Your task to perform on an android device: open sync settings in chrome Image 0: 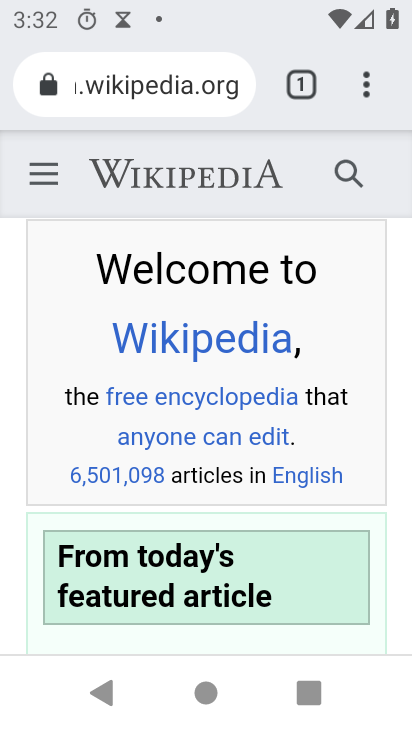
Step 0: press home button
Your task to perform on an android device: open sync settings in chrome Image 1: 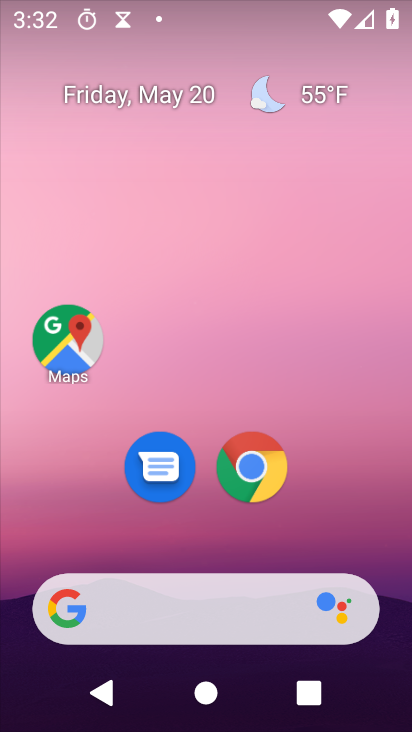
Step 1: drag from (208, 542) to (187, 106)
Your task to perform on an android device: open sync settings in chrome Image 2: 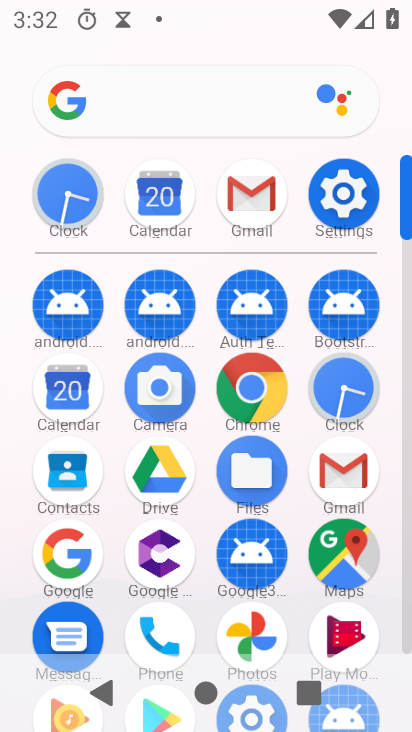
Step 2: click (242, 383)
Your task to perform on an android device: open sync settings in chrome Image 3: 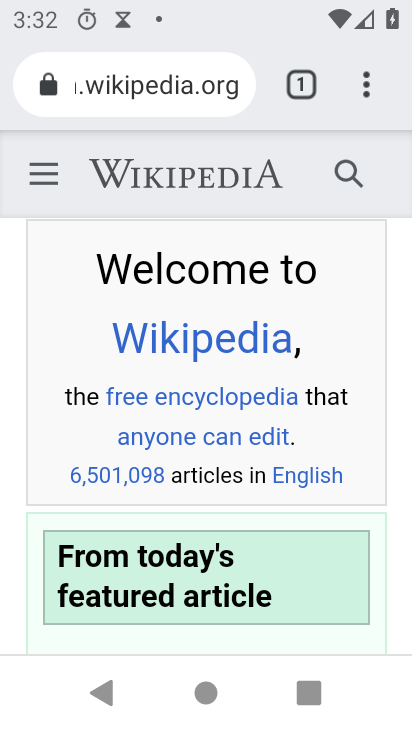
Step 3: click (370, 72)
Your task to perform on an android device: open sync settings in chrome Image 4: 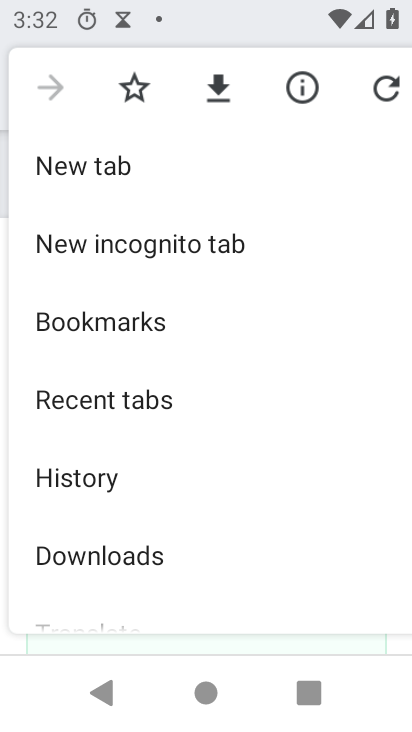
Step 4: drag from (232, 538) to (196, 255)
Your task to perform on an android device: open sync settings in chrome Image 5: 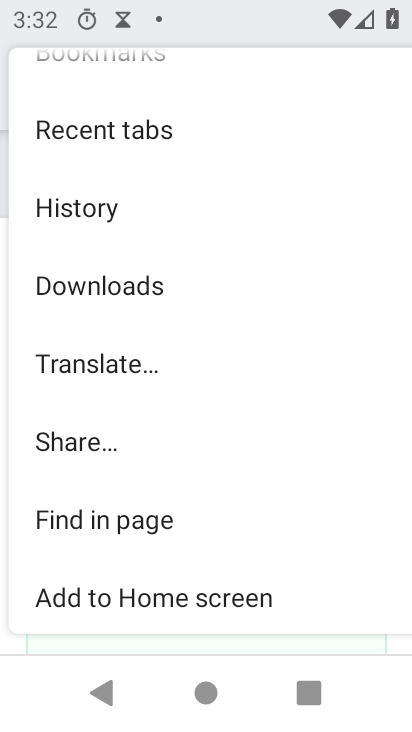
Step 5: drag from (110, 539) to (109, 264)
Your task to perform on an android device: open sync settings in chrome Image 6: 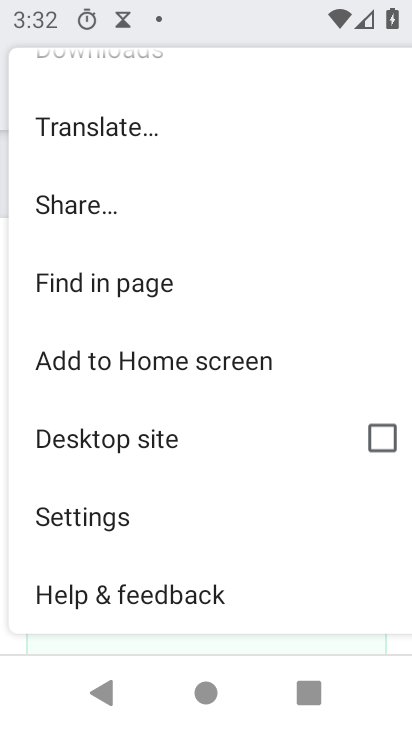
Step 6: click (111, 513)
Your task to perform on an android device: open sync settings in chrome Image 7: 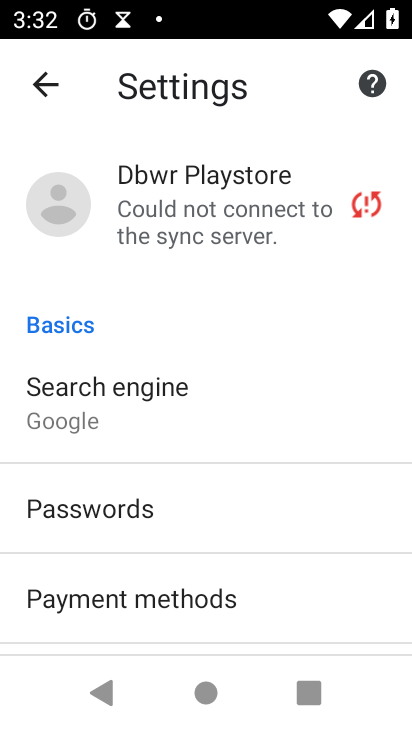
Step 7: click (187, 224)
Your task to perform on an android device: open sync settings in chrome Image 8: 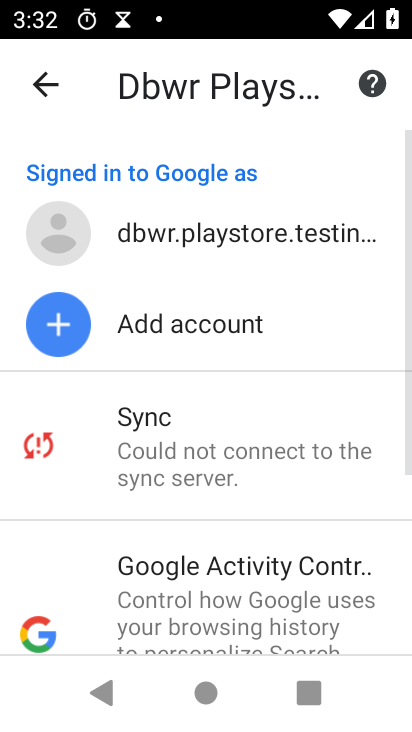
Step 8: click (152, 463)
Your task to perform on an android device: open sync settings in chrome Image 9: 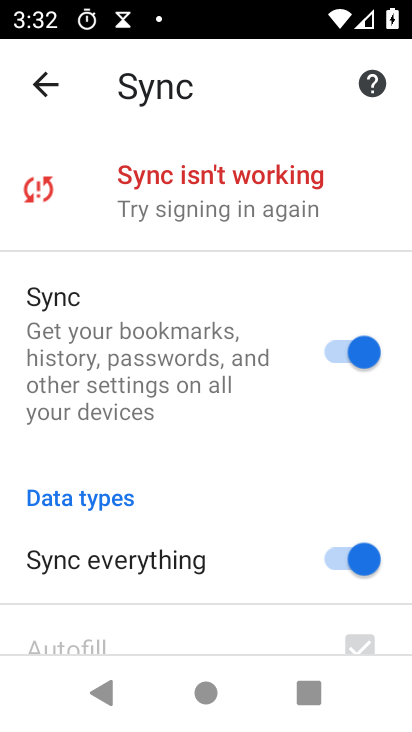
Step 9: task complete